Your task to perform on an android device: Open wifi settings Image 0: 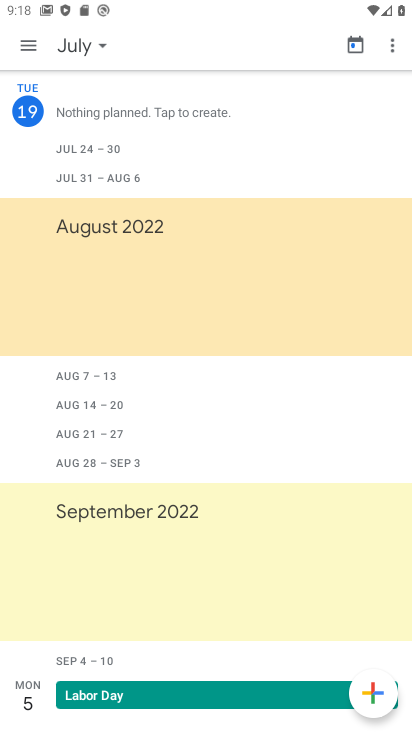
Step 0: press home button
Your task to perform on an android device: Open wifi settings Image 1: 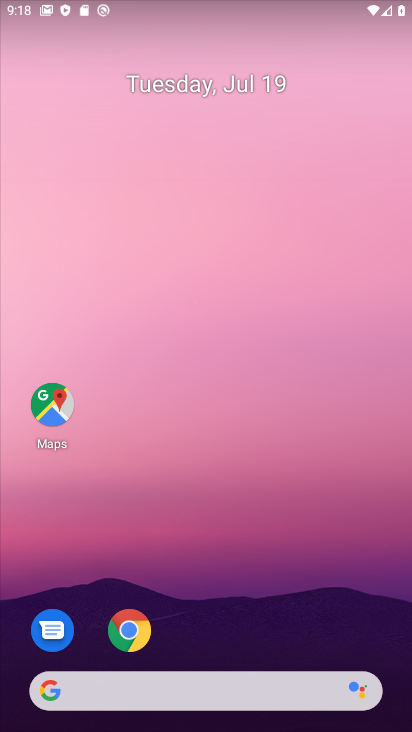
Step 1: drag from (203, 498) to (232, 0)
Your task to perform on an android device: Open wifi settings Image 2: 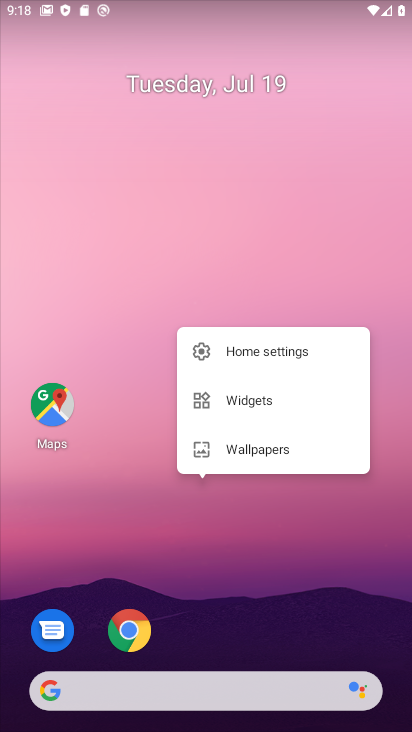
Step 2: click (258, 607)
Your task to perform on an android device: Open wifi settings Image 3: 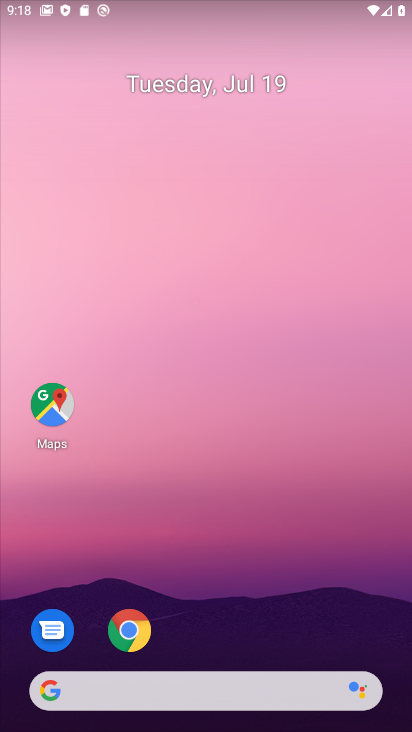
Step 3: drag from (238, 630) to (231, 46)
Your task to perform on an android device: Open wifi settings Image 4: 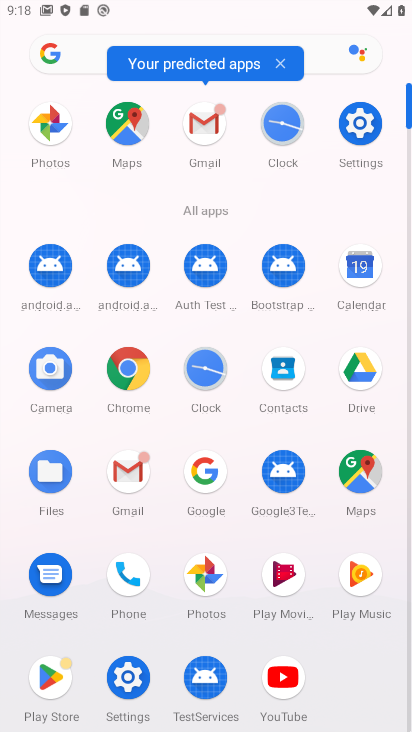
Step 4: click (126, 688)
Your task to perform on an android device: Open wifi settings Image 5: 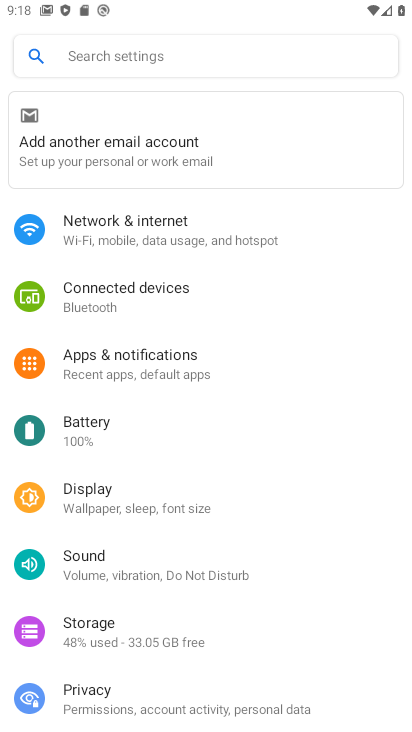
Step 5: click (126, 239)
Your task to perform on an android device: Open wifi settings Image 6: 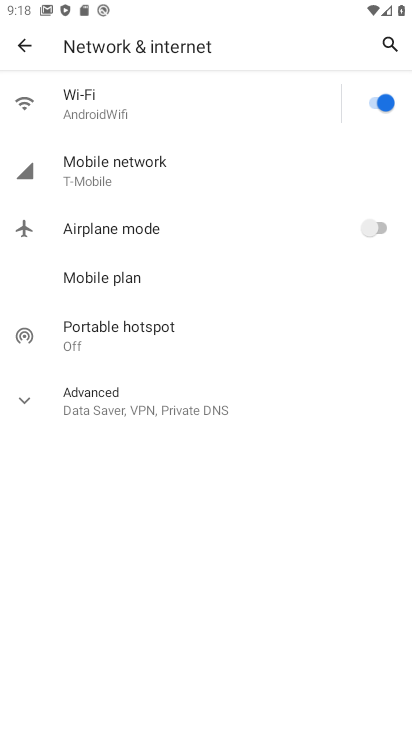
Step 6: click (141, 77)
Your task to perform on an android device: Open wifi settings Image 7: 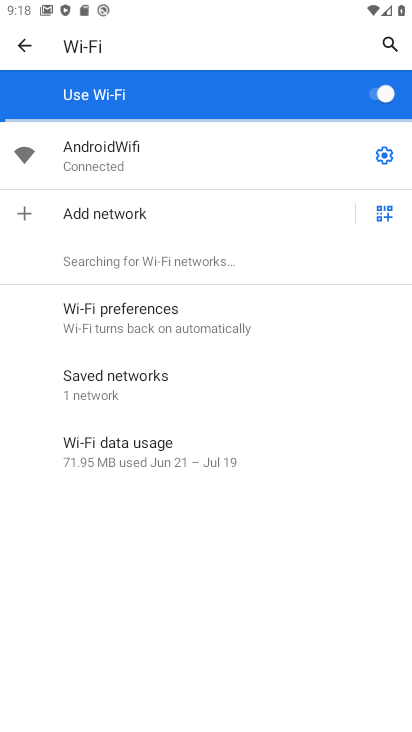
Step 7: task complete